Your task to perform on an android device: check out phone information Image 0: 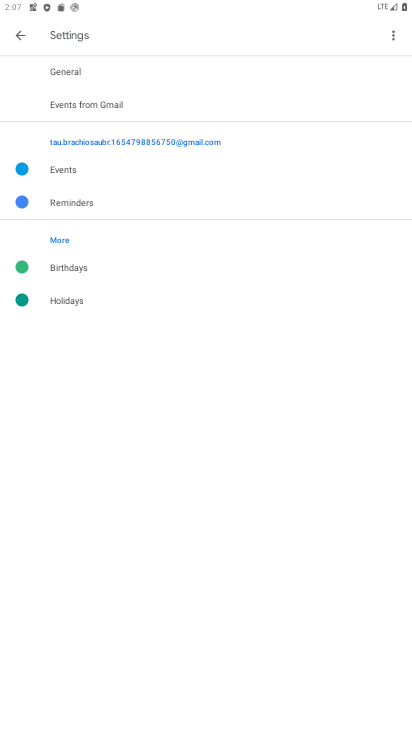
Step 0: press home button
Your task to perform on an android device: check out phone information Image 1: 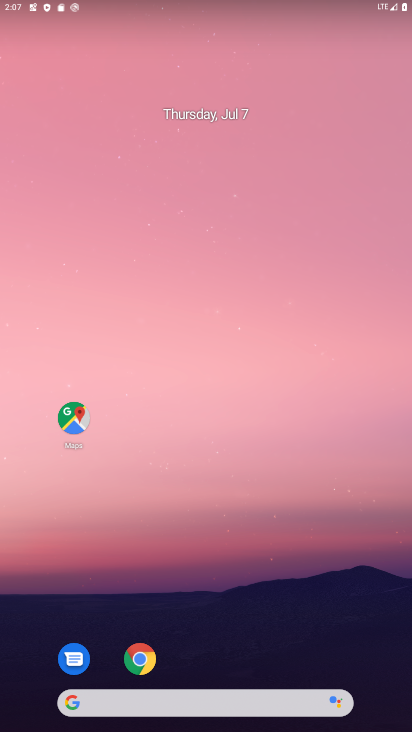
Step 1: drag from (253, 637) to (274, 78)
Your task to perform on an android device: check out phone information Image 2: 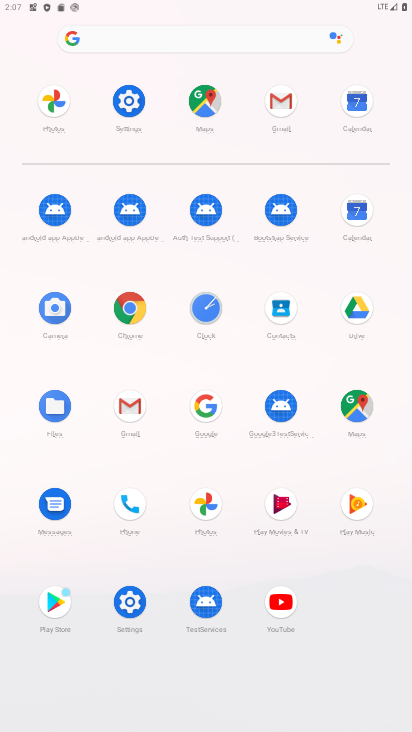
Step 2: click (129, 100)
Your task to perform on an android device: check out phone information Image 3: 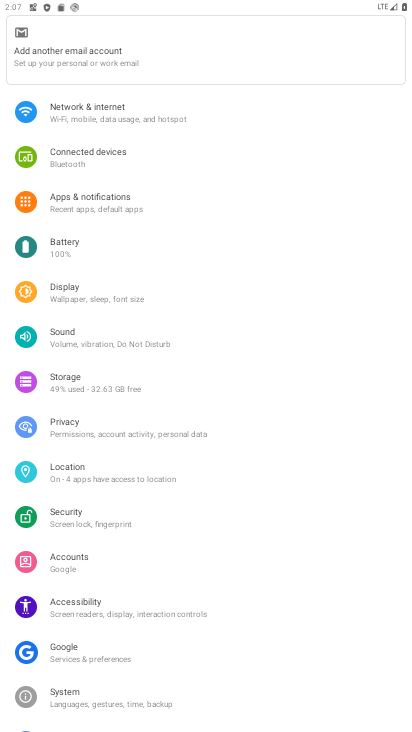
Step 3: drag from (169, 658) to (266, 491)
Your task to perform on an android device: check out phone information Image 4: 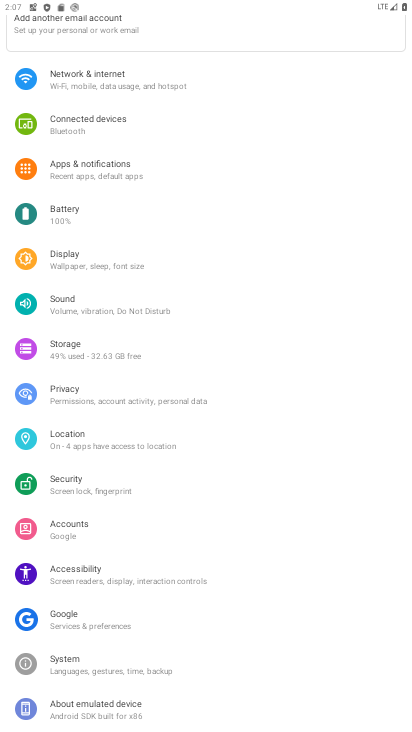
Step 4: drag from (119, 613) to (199, 510)
Your task to perform on an android device: check out phone information Image 5: 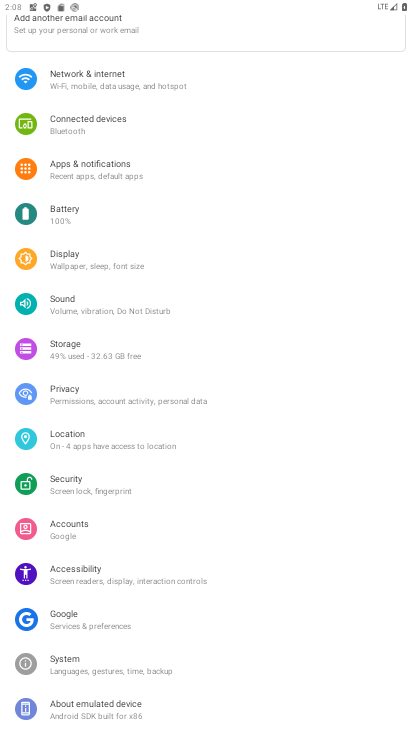
Step 5: click (110, 695)
Your task to perform on an android device: check out phone information Image 6: 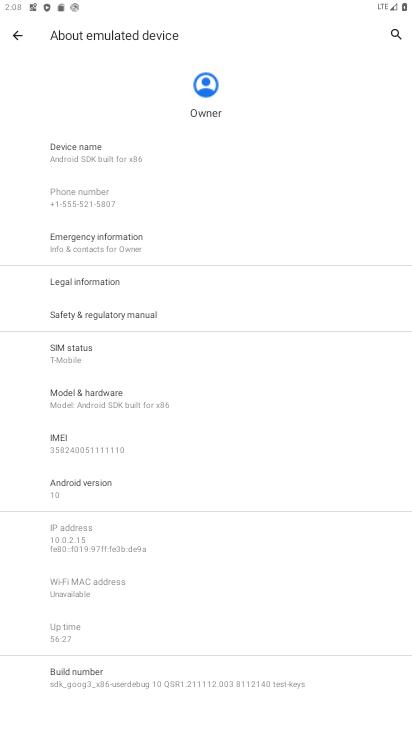
Step 6: task complete